Your task to perform on an android device: turn off location Image 0: 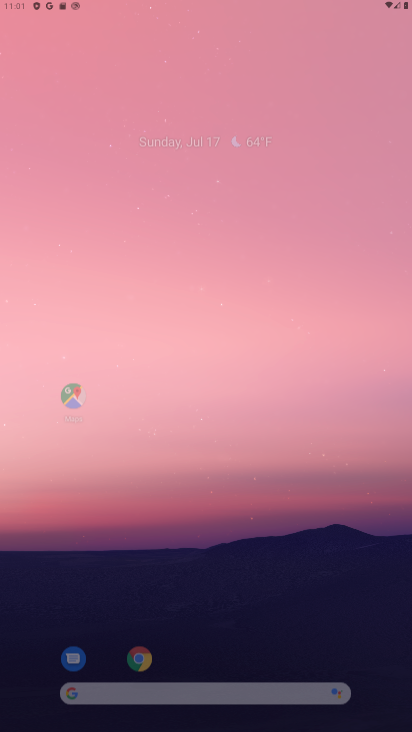
Step 0: click (408, 409)
Your task to perform on an android device: turn off location Image 1: 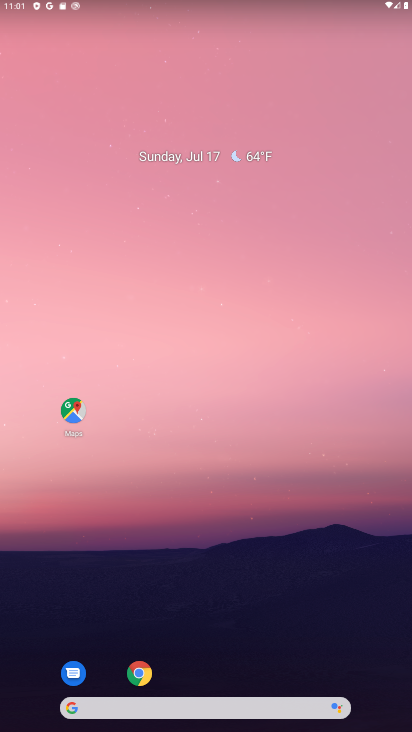
Step 1: drag from (206, 682) to (232, 265)
Your task to perform on an android device: turn off location Image 2: 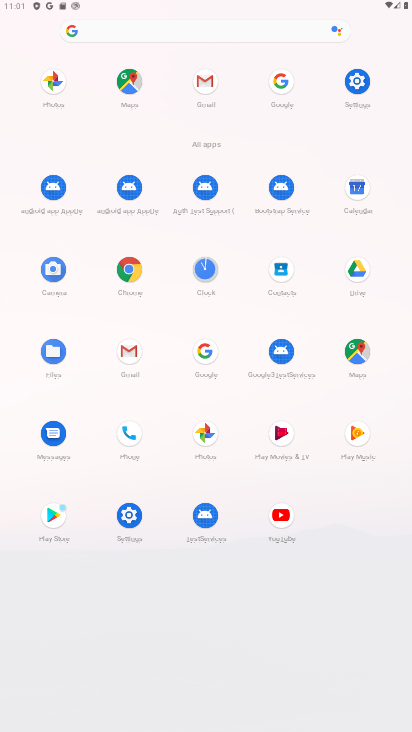
Step 2: click (362, 73)
Your task to perform on an android device: turn off location Image 3: 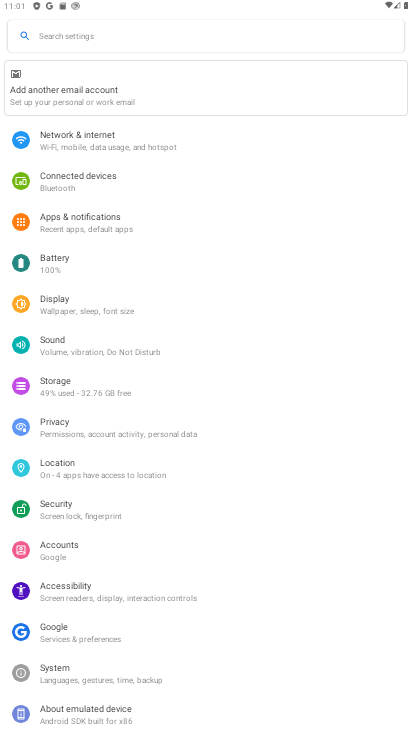
Step 3: click (91, 464)
Your task to perform on an android device: turn off location Image 4: 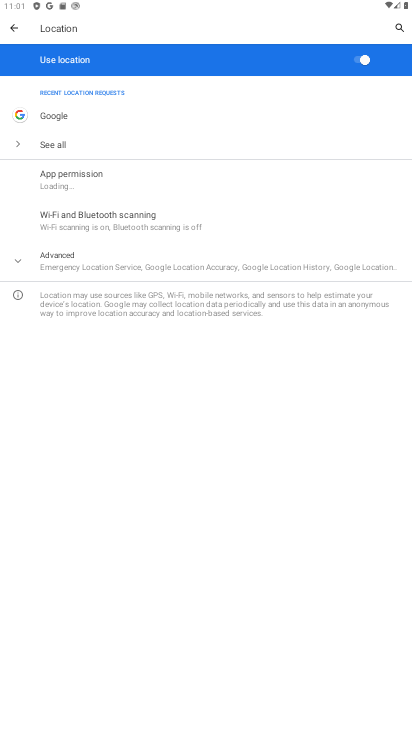
Step 4: click (363, 62)
Your task to perform on an android device: turn off location Image 5: 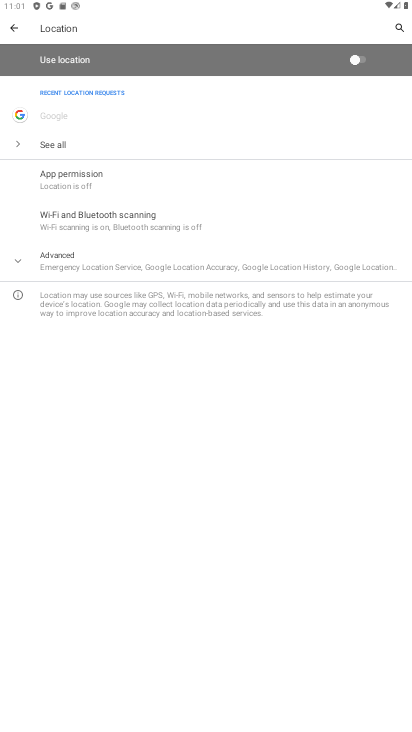
Step 5: task complete